Your task to perform on an android device: Toggle the flashlight Image 0: 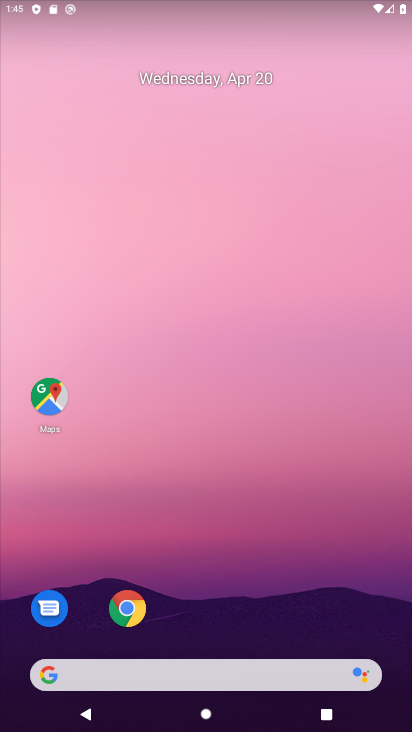
Step 0: drag from (328, 621) to (150, 77)
Your task to perform on an android device: Toggle the flashlight Image 1: 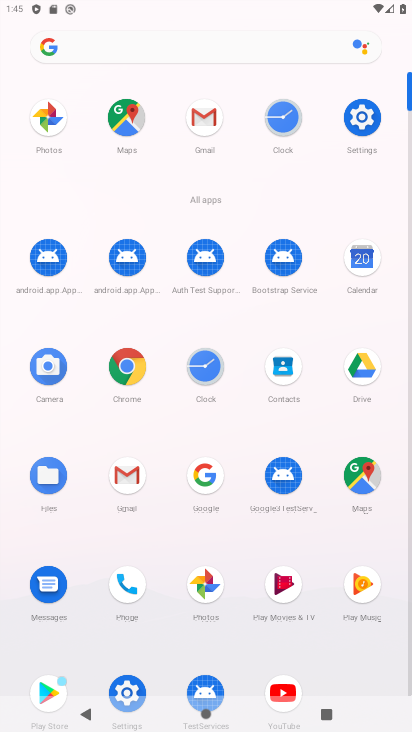
Step 1: click (374, 123)
Your task to perform on an android device: Toggle the flashlight Image 2: 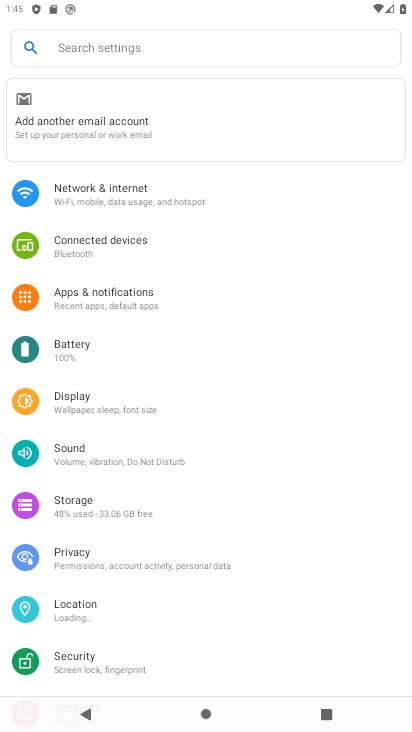
Step 2: task complete